Your task to perform on an android device: turn on javascript in the chrome app Image 0: 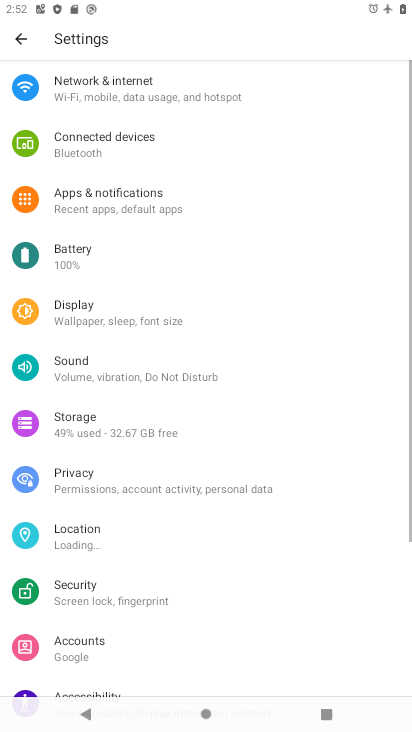
Step 0: press home button
Your task to perform on an android device: turn on javascript in the chrome app Image 1: 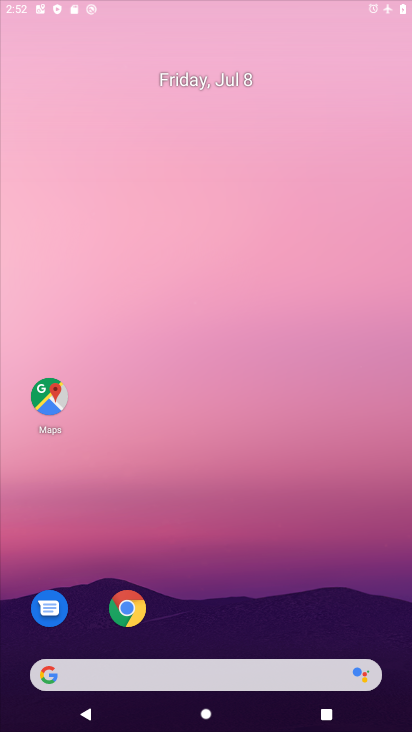
Step 1: drag from (284, 690) to (274, 89)
Your task to perform on an android device: turn on javascript in the chrome app Image 2: 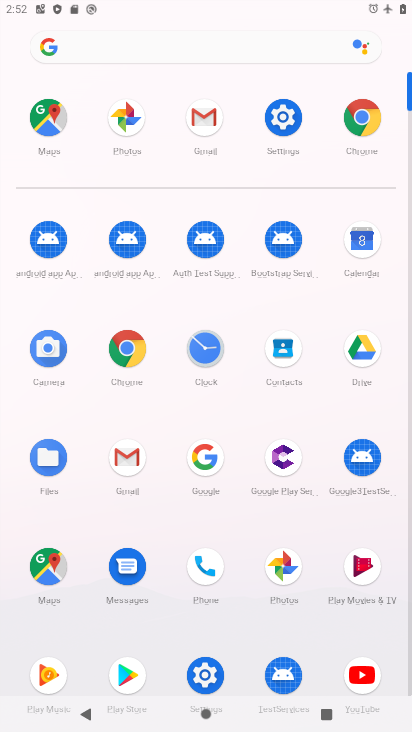
Step 2: click (138, 347)
Your task to perform on an android device: turn on javascript in the chrome app Image 3: 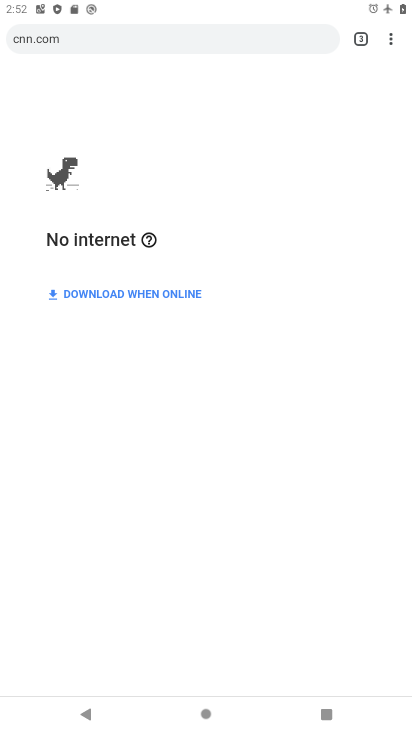
Step 3: drag from (386, 35) to (280, 421)
Your task to perform on an android device: turn on javascript in the chrome app Image 4: 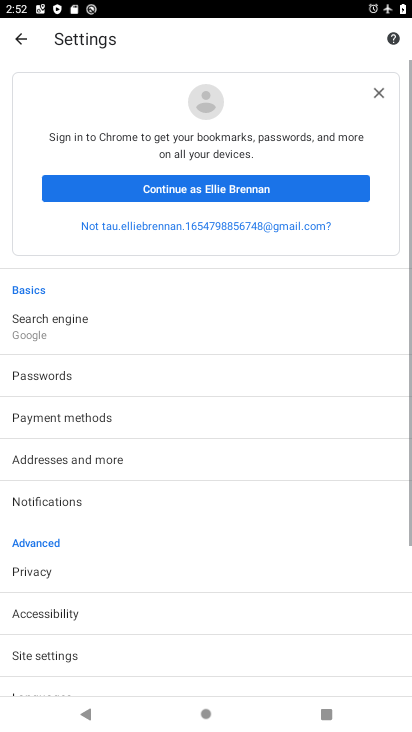
Step 4: drag from (126, 597) to (140, 379)
Your task to perform on an android device: turn on javascript in the chrome app Image 5: 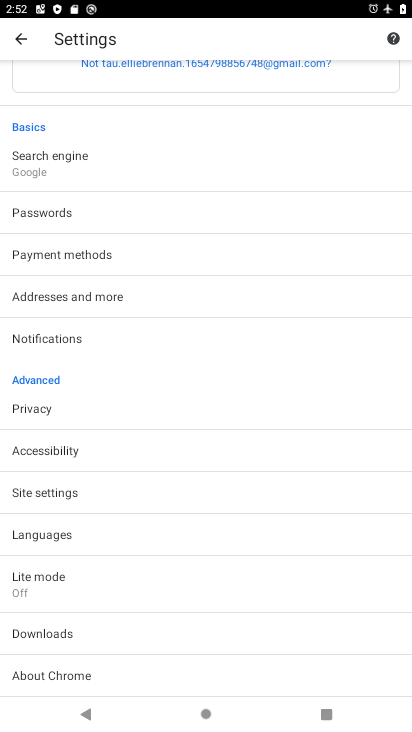
Step 5: click (90, 504)
Your task to perform on an android device: turn on javascript in the chrome app Image 6: 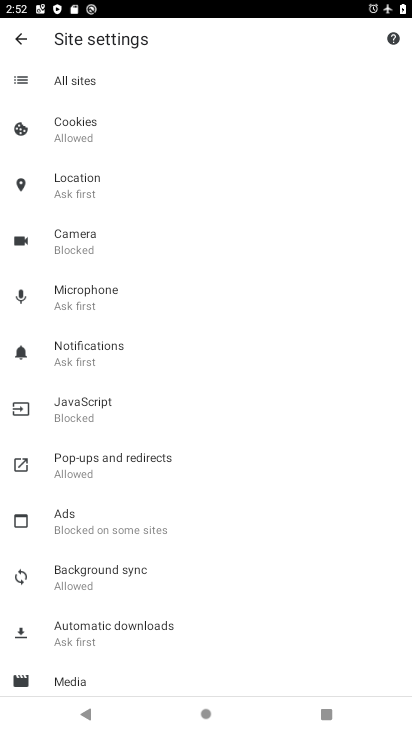
Step 6: click (82, 424)
Your task to perform on an android device: turn on javascript in the chrome app Image 7: 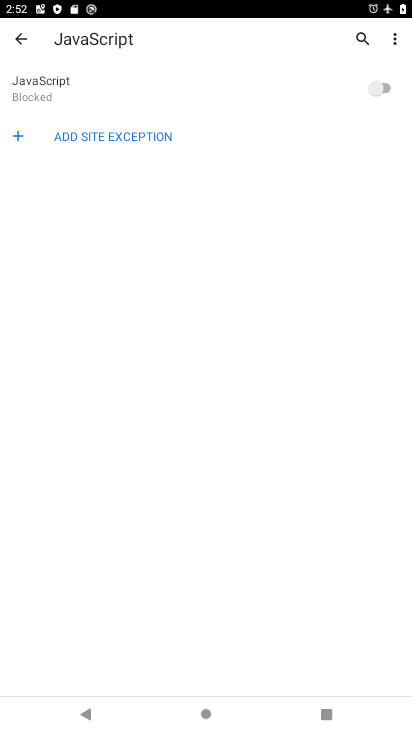
Step 7: click (384, 89)
Your task to perform on an android device: turn on javascript in the chrome app Image 8: 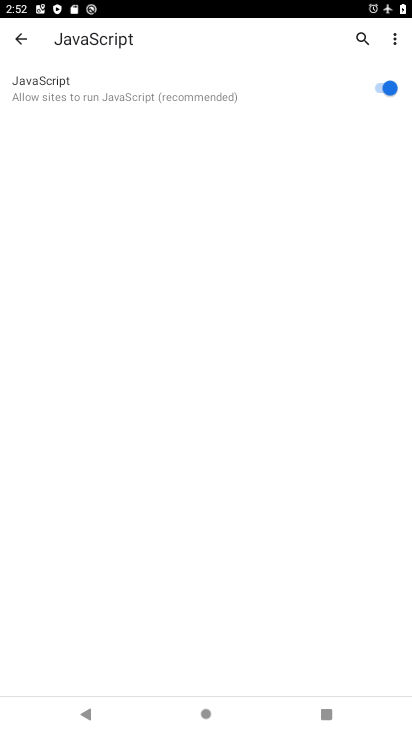
Step 8: task complete